Your task to perform on an android device: Open notification settings Image 0: 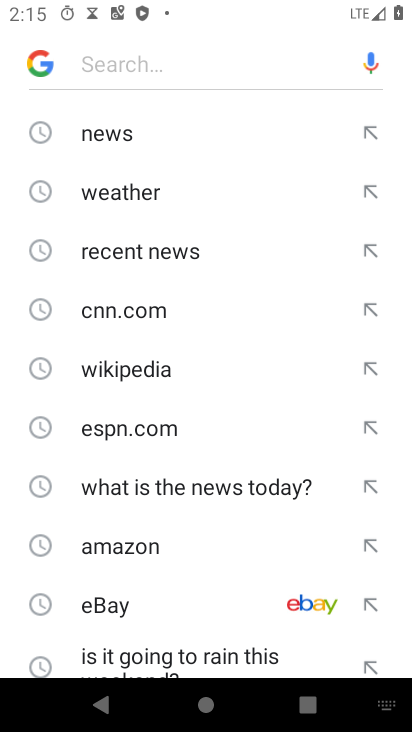
Step 0: press home button
Your task to perform on an android device: Open notification settings Image 1: 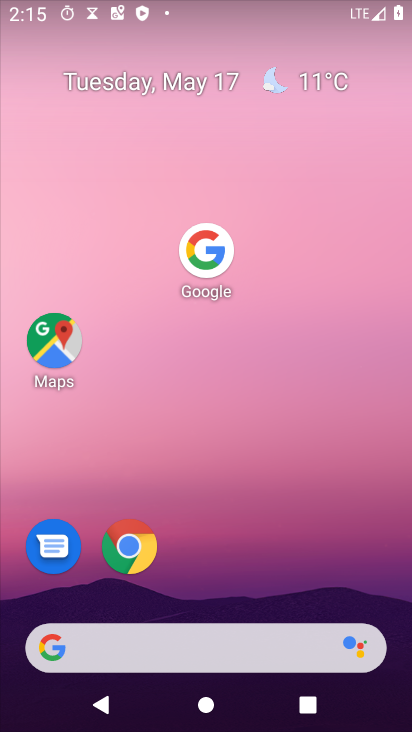
Step 1: drag from (138, 645) to (243, 125)
Your task to perform on an android device: Open notification settings Image 2: 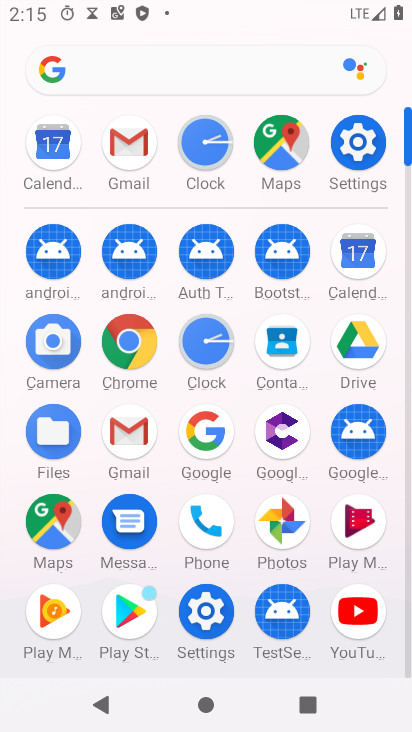
Step 2: click (366, 148)
Your task to perform on an android device: Open notification settings Image 3: 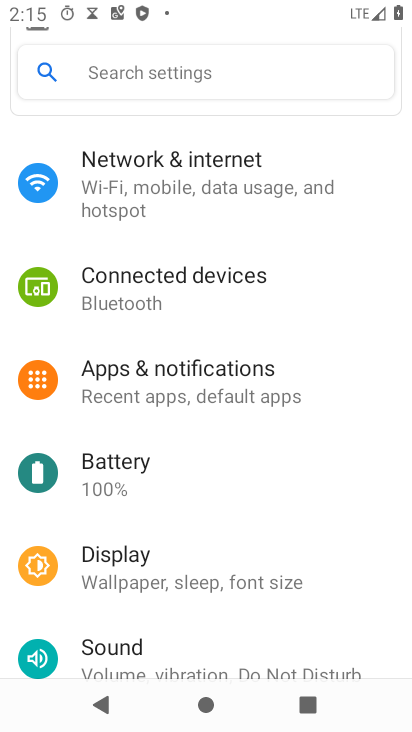
Step 3: click (202, 380)
Your task to perform on an android device: Open notification settings Image 4: 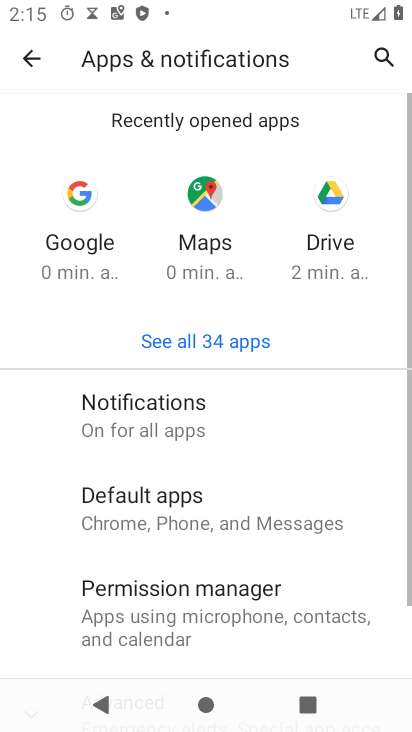
Step 4: click (177, 410)
Your task to perform on an android device: Open notification settings Image 5: 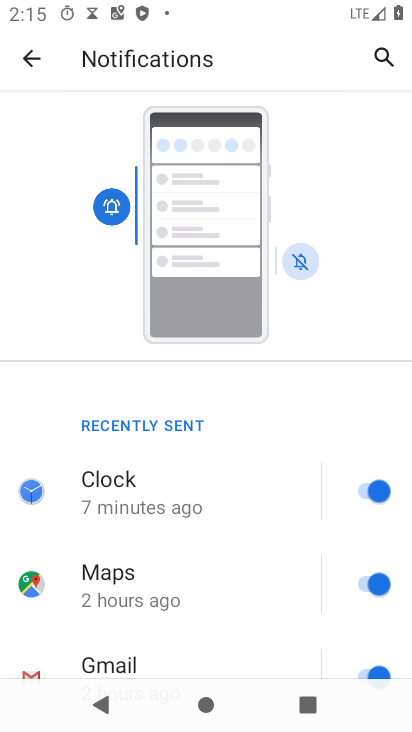
Step 5: drag from (208, 662) to (380, 167)
Your task to perform on an android device: Open notification settings Image 6: 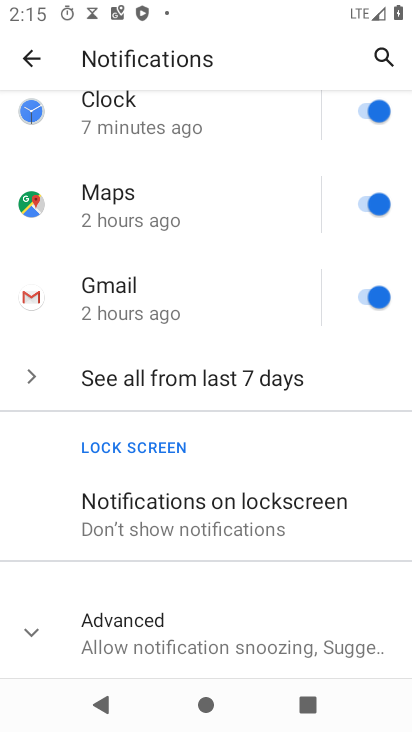
Step 6: click (91, 622)
Your task to perform on an android device: Open notification settings Image 7: 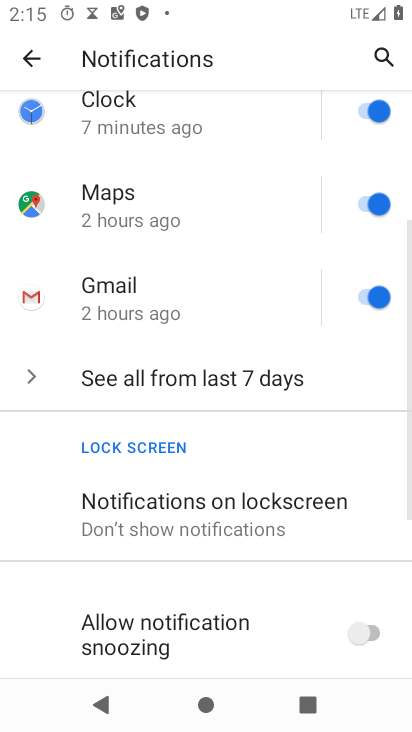
Step 7: task complete